Your task to perform on an android device: open app "WhatsApp Messenger" (install if not already installed) Image 0: 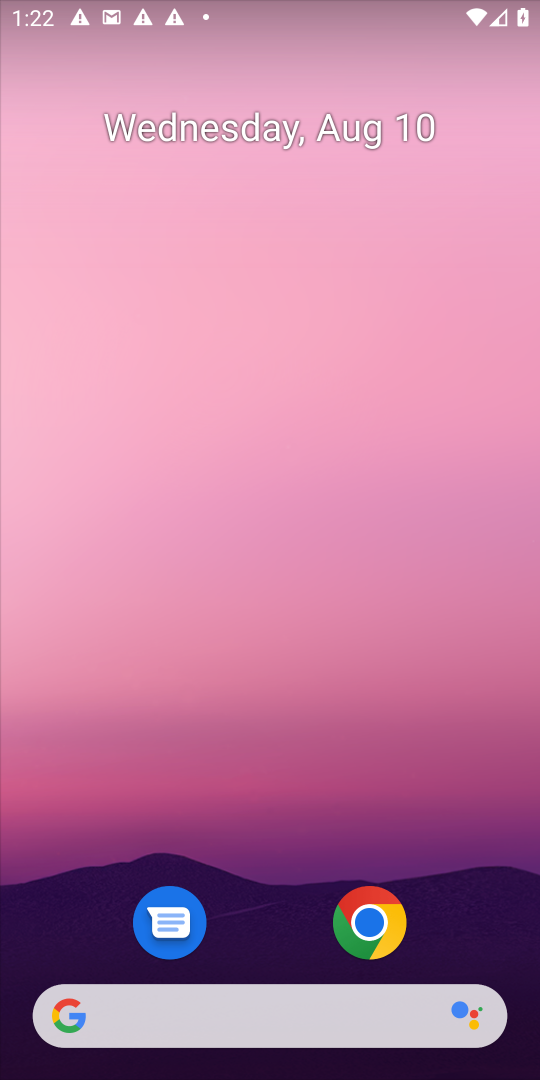
Step 0: drag from (282, 939) to (249, 259)
Your task to perform on an android device: open app "WhatsApp Messenger" (install if not already installed) Image 1: 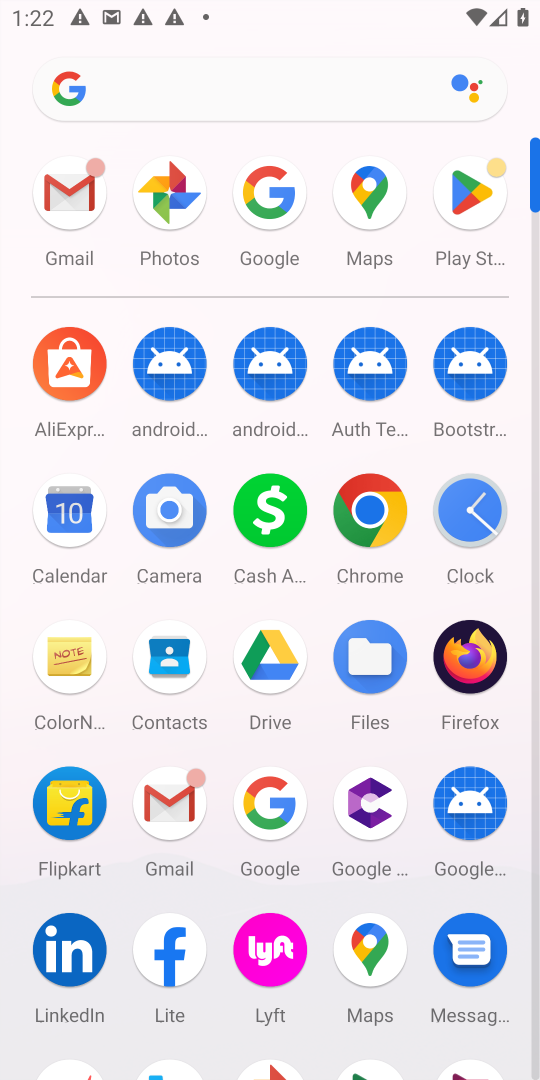
Step 1: click (474, 196)
Your task to perform on an android device: open app "WhatsApp Messenger" (install if not already installed) Image 2: 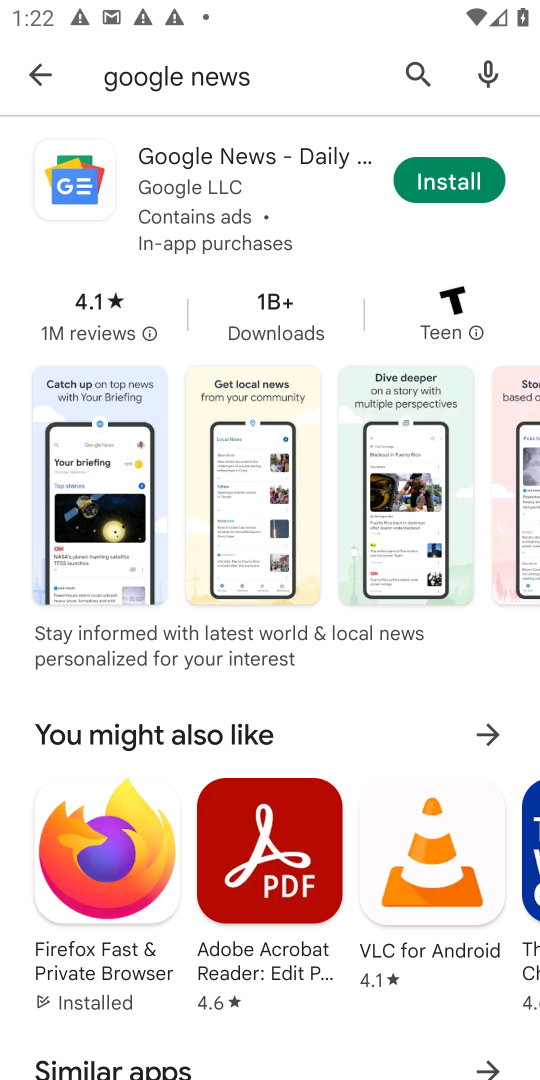
Step 2: click (45, 77)
Your task to perform on an android device: open app "WhatsApp Messenger" (install if not already installed) Image 3: 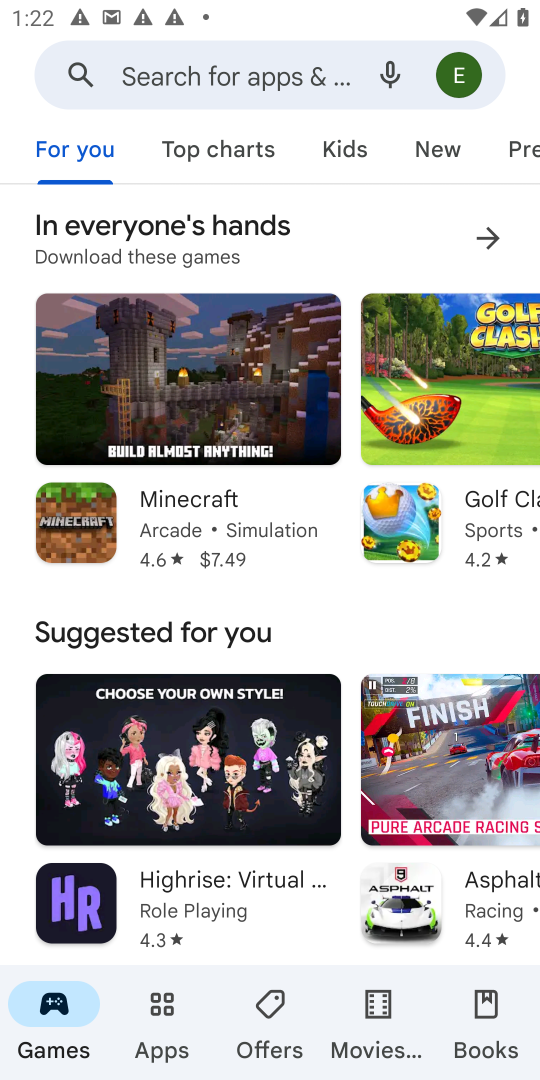
Step 3: click (179, 67)
Your task to perform on an android device: open app "WhatsApp Messenger" (install if not already installed) Image 4: 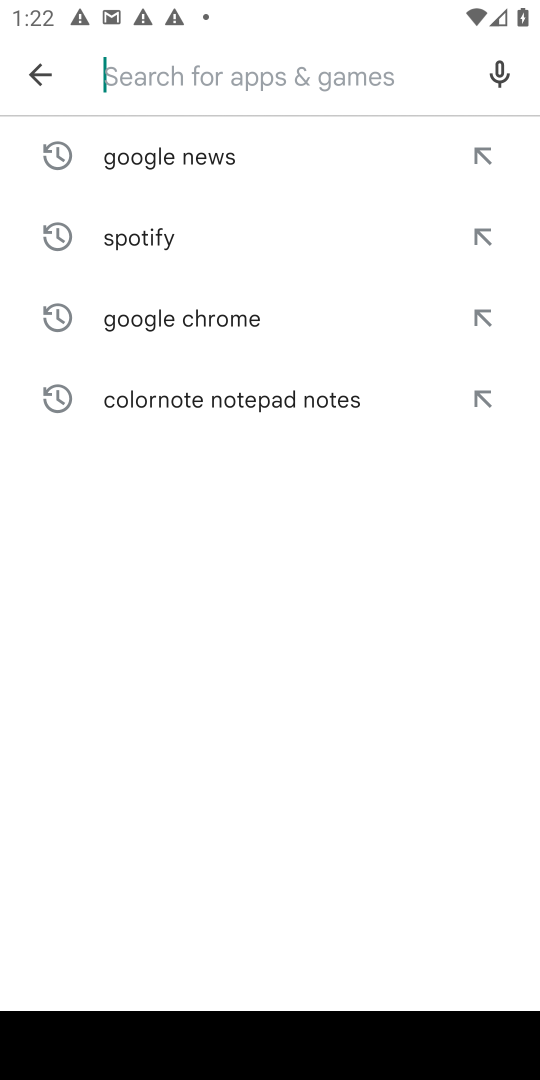
Step 4: type "WhatsApp Messenger"
Your task to perform on an android device: open app "WhatsApp Messenger" (install if not already installed) Image 5: 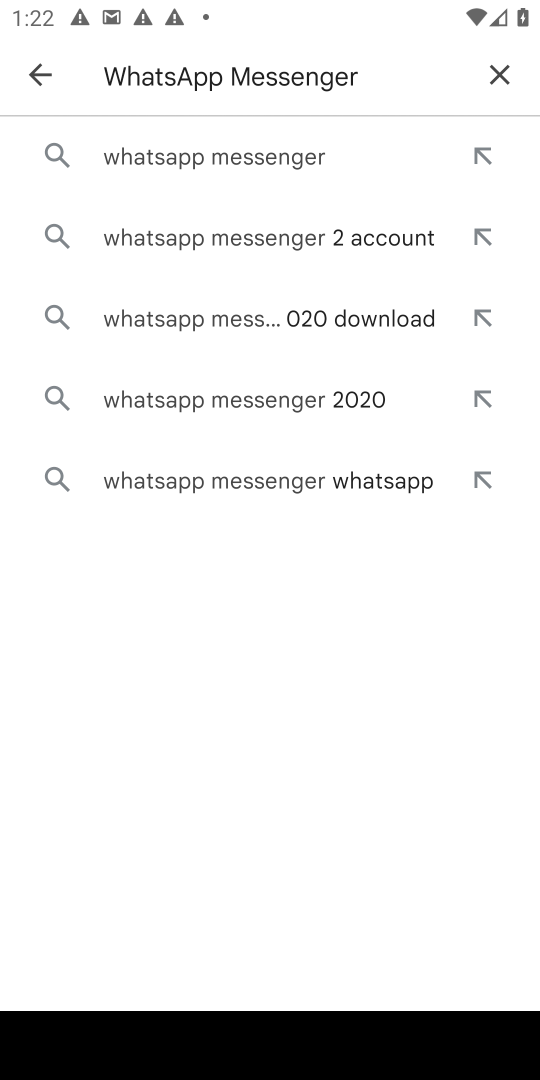
Step 5: click (229, 159)
Your task to perform on an android device: open app "WhatsApp Messenger" (install if not already installed) Image 6: 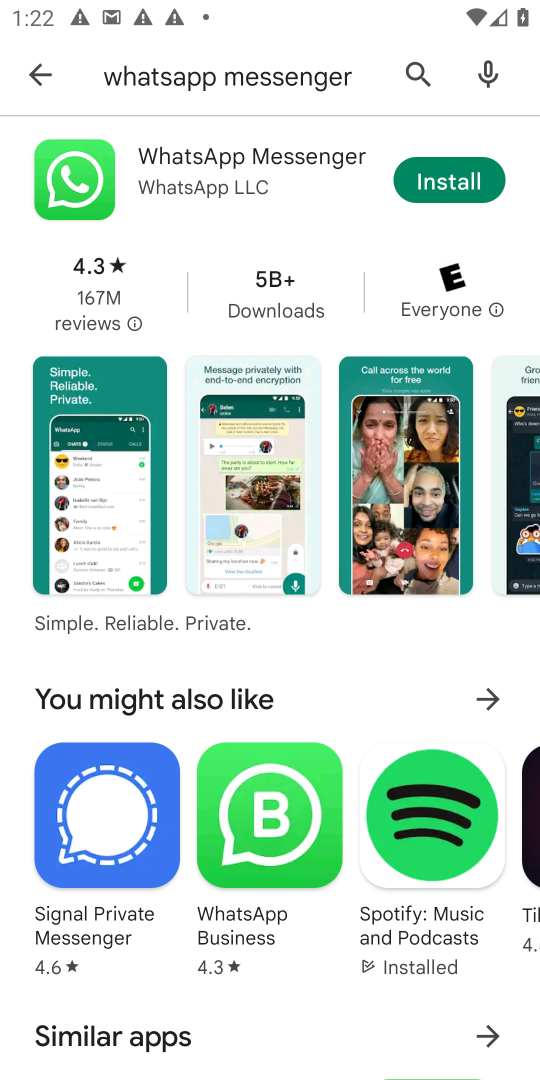
Step 6: click (434, 192)
Your task to perform on an android device: open app "WhatsApp Messenger" (install if not already installed) Image 7: 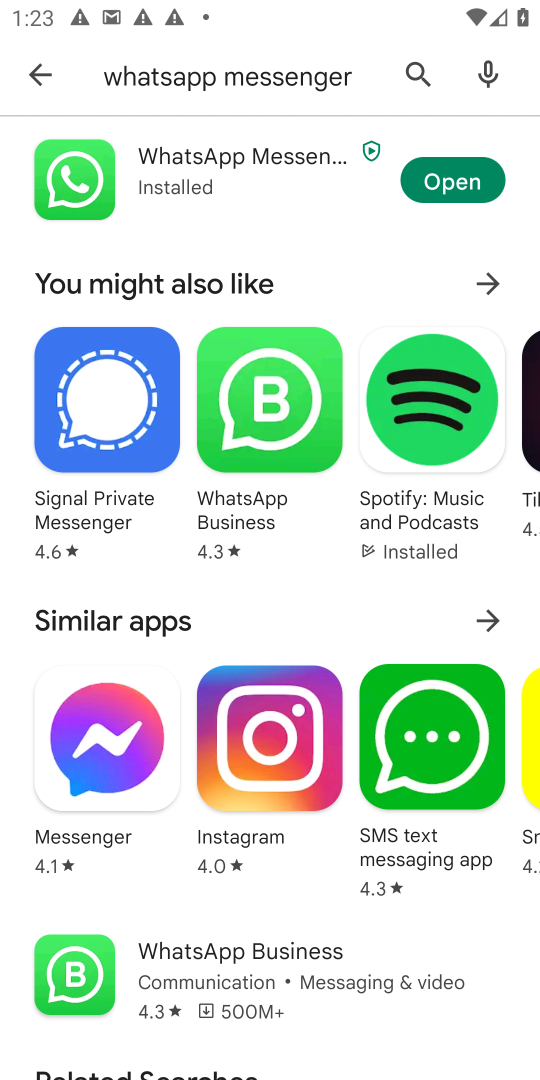
Step 7: click (464, 204)
Your task to perform on an android device: open app "WhatsApp Messenger" (install if not already installed) Image 8: 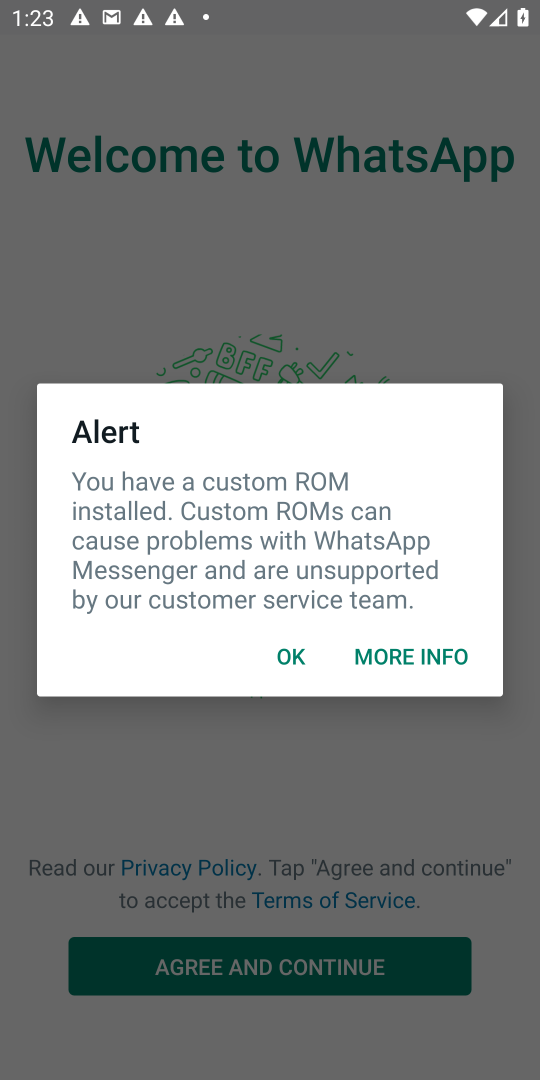
Step 8: click (281, 660)
Your task to perform on an android device: open app "WhatsApp Messenger" (install if not already installed) Image 9: 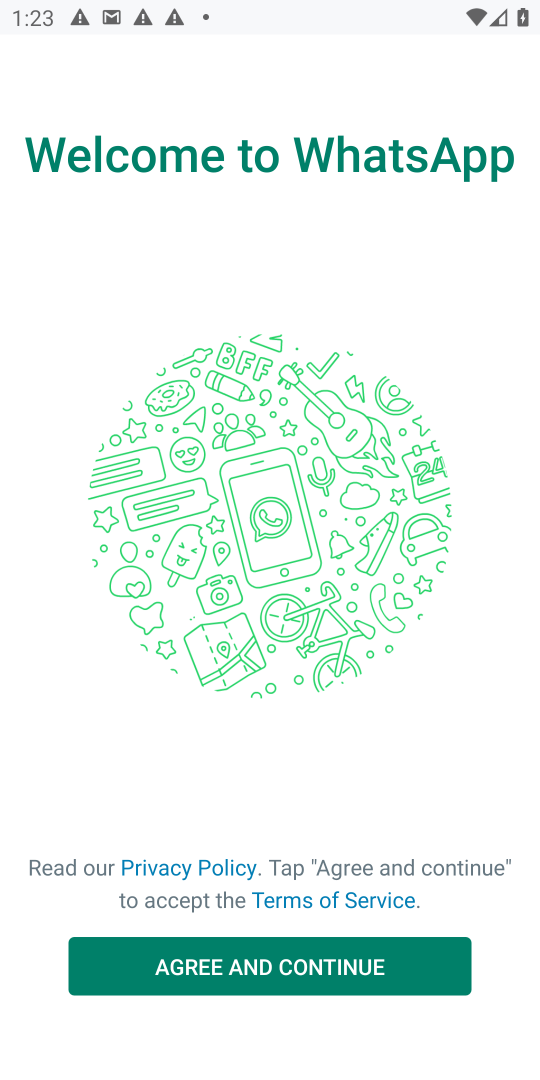
Step 9: task complete